Your task to perform on an android device: Open the Play Movies app and select the watchlist tab. Image 0: 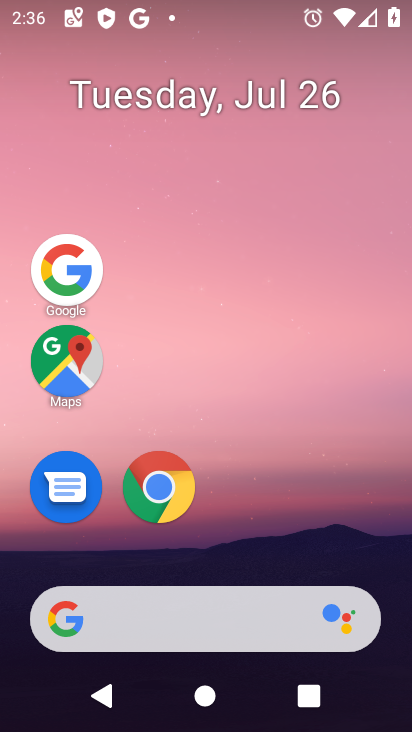
Step 0: drag from (193, 528) to (254, 115)
Your task to perform on an android device: Open the Play Movies app and select the watchlist tab. Image 1: 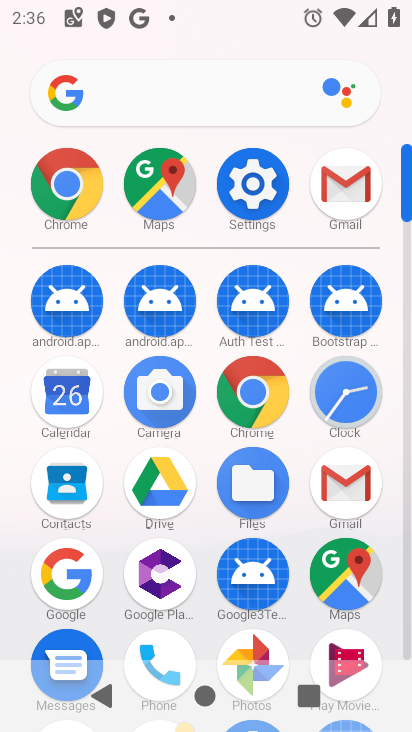
Step 1: drag from (277, 516) to (294, 136)
Your task to perform on an android device: Open the Play Movies app and select the watchlist tab. Image 2: 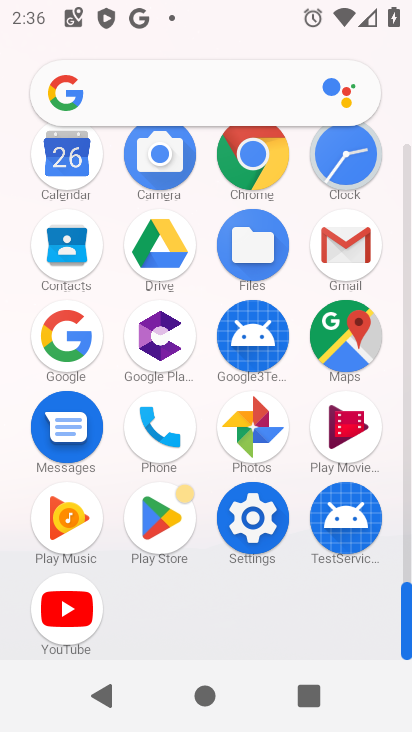
Step 2: click (339, 426)
Your task to perform on an android device: Open the Play Movies app and select the watchlist tab. Image 3: 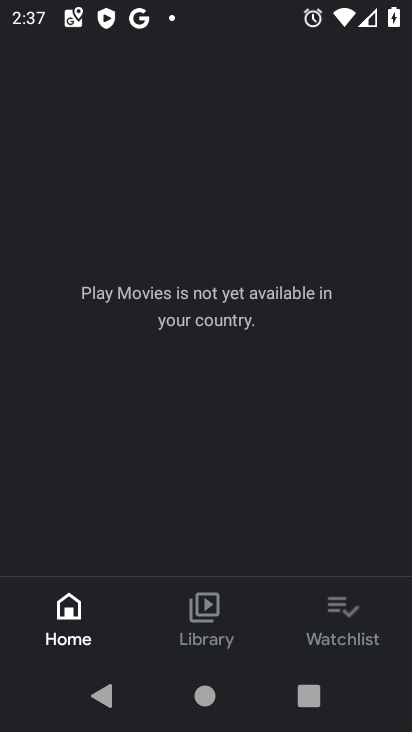
Step 3: click (330, 622)
Your task to perform on an android device: Open the Play Movies app and select the watchlist tab. Image 4: 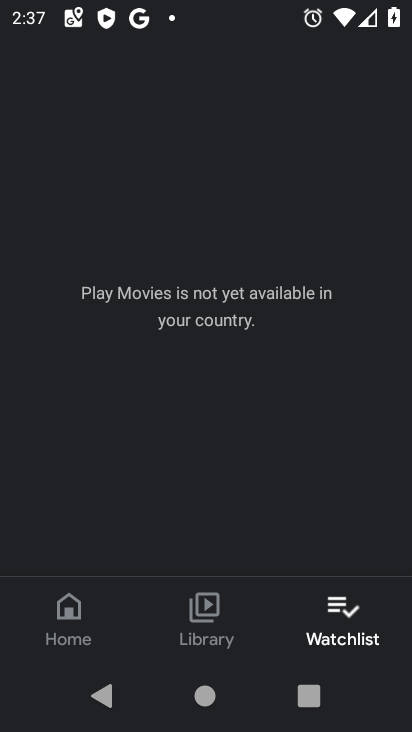
Step 4: task complete